Your task to perform on an android device: Do I have any events tomorrow? Image 0: 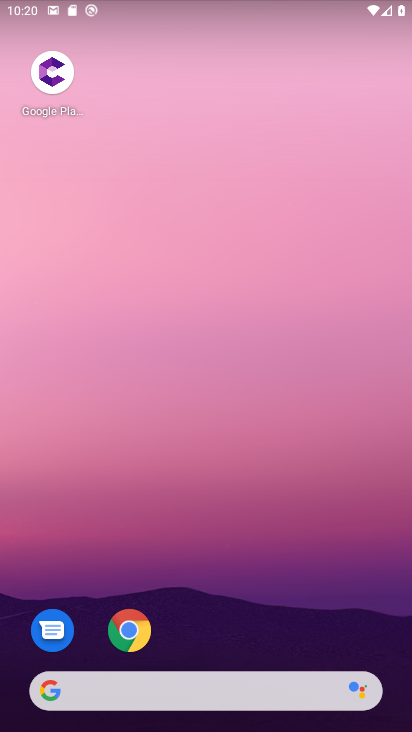
Step 0: drag from (219, 650) to (309, 3)
Your task to perform on an android device: Do I have any events tomorrow? Image 1: 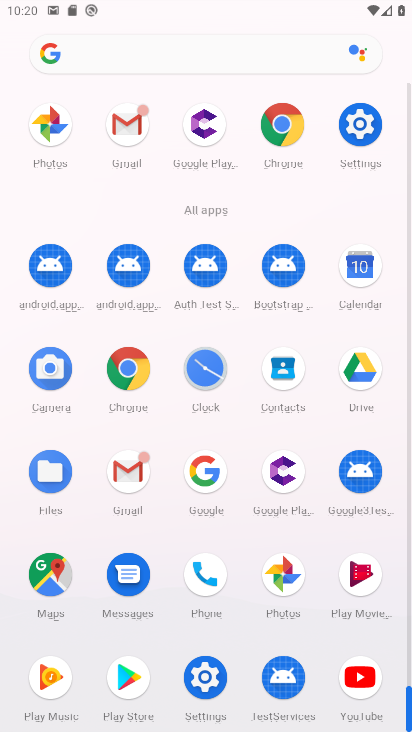
Step 1: click (360, 269)
Your task to perform on an android device: Do I have any events tomorrow? Image 2: 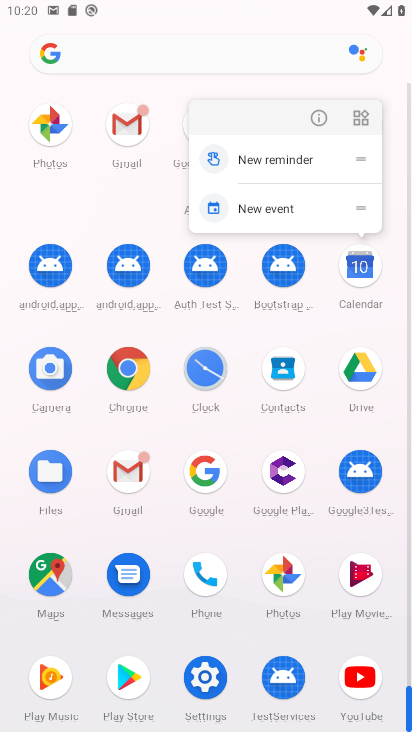
Step 2: click (357, 258)
Your task to perform on an android device: Do I have any events tomorrow? Image 3: 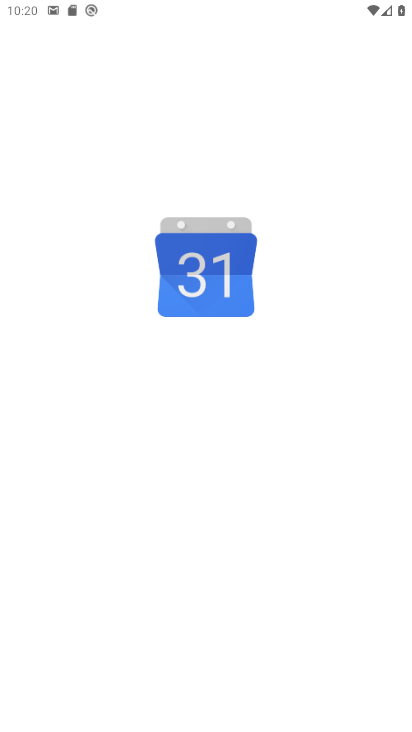
Step 3: click (357, 258)
Your task to perform on an android device: Do I have any events tomorrow? Image 4: 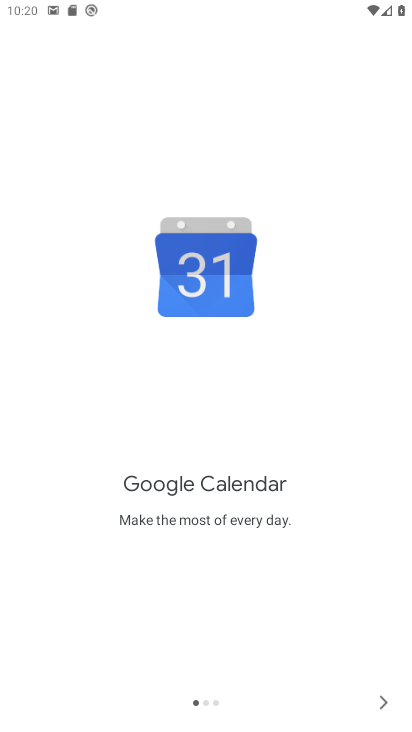
Step 4: click (384, 696)
Your task to perform on an android device: Do I have any events tomorrow? Image 5: 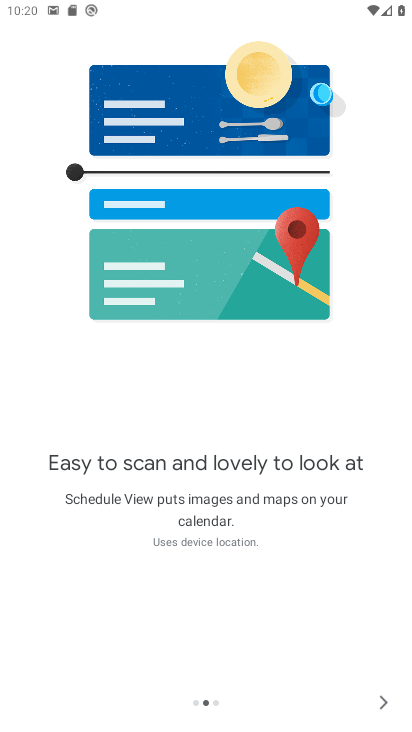
Step 5: click (384, 696)
Your task to perform on an android device: Do I have any events tomorrow? Image 6: 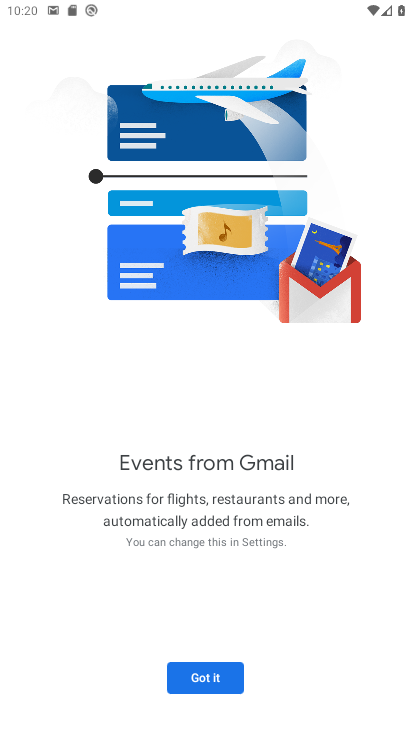
Step 6: click (211, 677)
Your task to perform on an android device: Do I have any events tomorrow? Image 7: 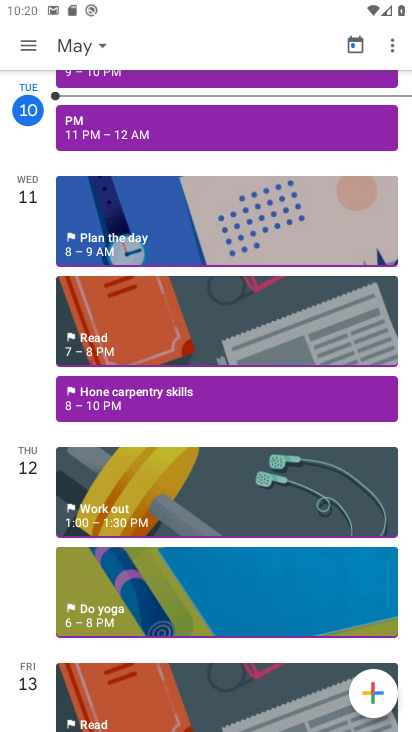
Step 7: task complete